Your task to perform on an android device: search for starred emails in the gmail app Image 0: 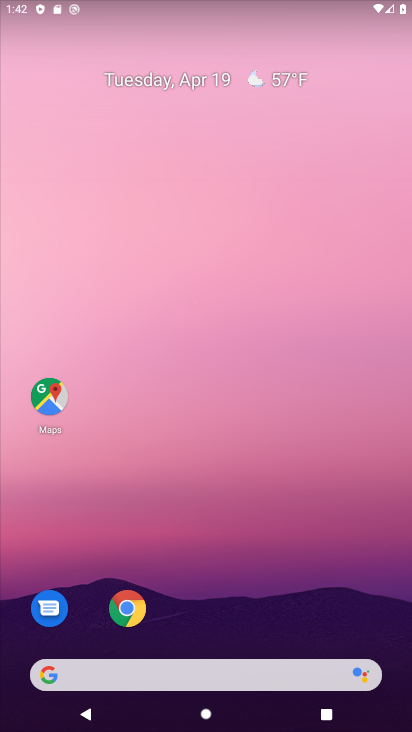
Step 0: drag from (185, 462) to (62, 59)
Your task to perform on an android device: search for starred emails in the gmail app Image 1: 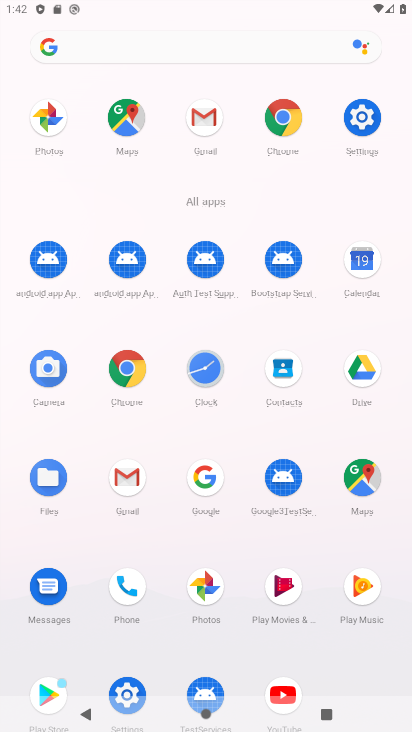
Step 1: click (206, 126)
Your task to perform on an android device: search for starred emails in the gmail app Image 2: 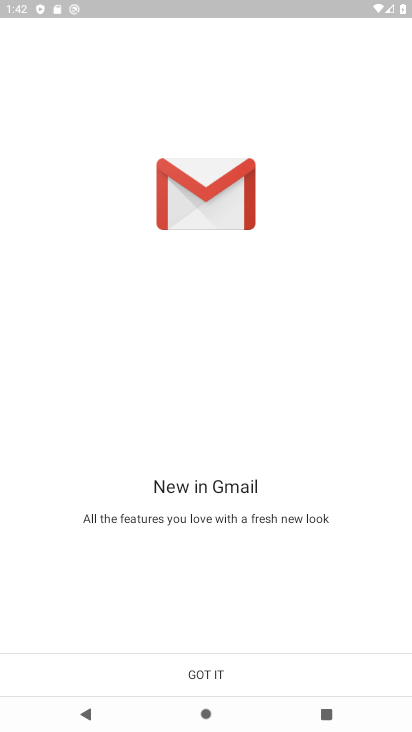
Step 2: click (210, 667)
Your task to perform on an android device: search for starred emails in the gmail app Image 3: 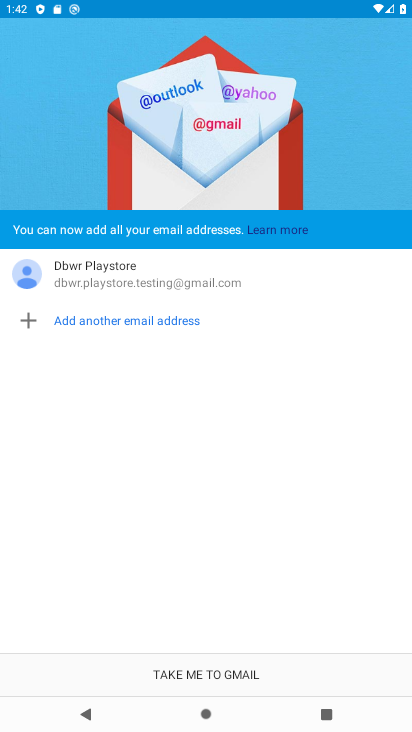
Step 3: click (203, 667)
Your task to perform on an android device: search for starred emails in the gmail app Image 4: 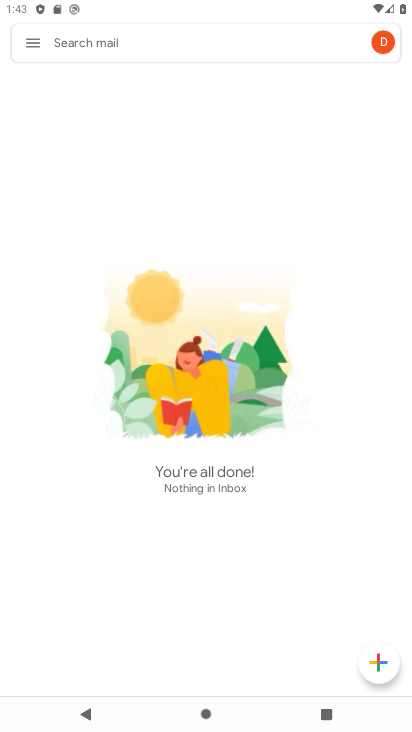
Step 4: click (33, 49)
Your task to perform on an android device: search for starred emails in the gmail app Image 5: 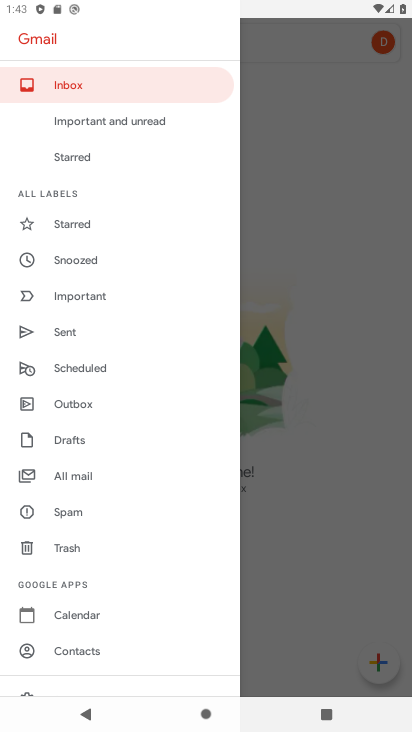
Step 5: click (60, 225)
Your task to perform on an android device: search for starred emails in the gmail app Image 6: 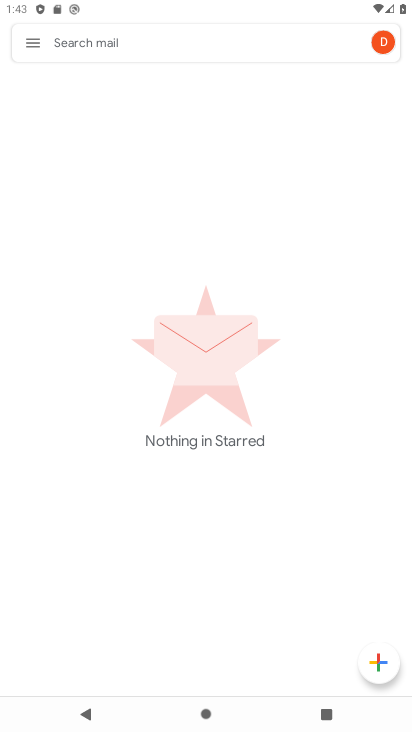
Step 6: task complete